Your task to perform on an android device: Go to Yahoo.com Image 0: 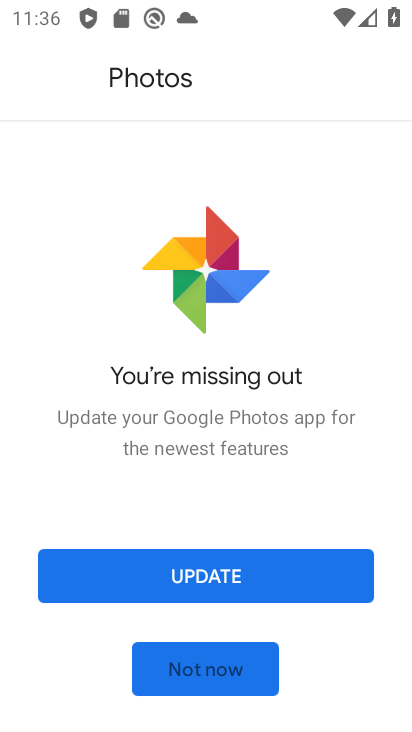
Step 0: press home button
Your task to perform on an android device: Go to Yahoo.com Image 1: 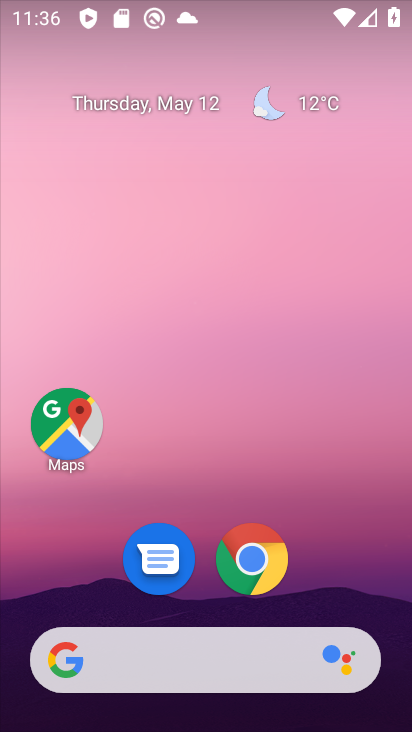
Step 1: click (285, 568)
Your task to perform on an android device: Go to Yahoo.com Image 2: 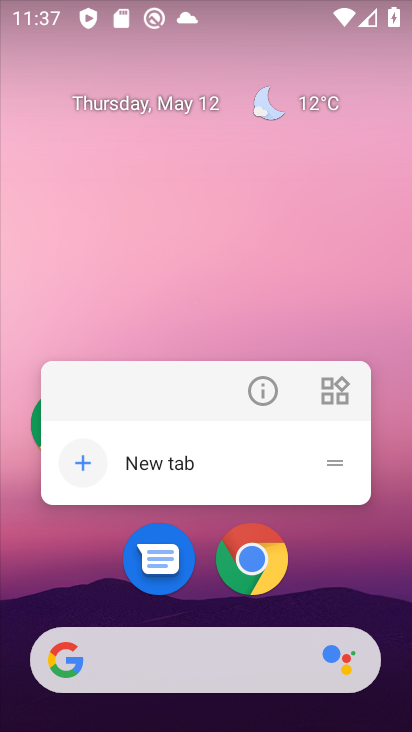
Step 2: click (257, 571)
Your task to perform on an android device: Go to Yahoo.com Image 3: 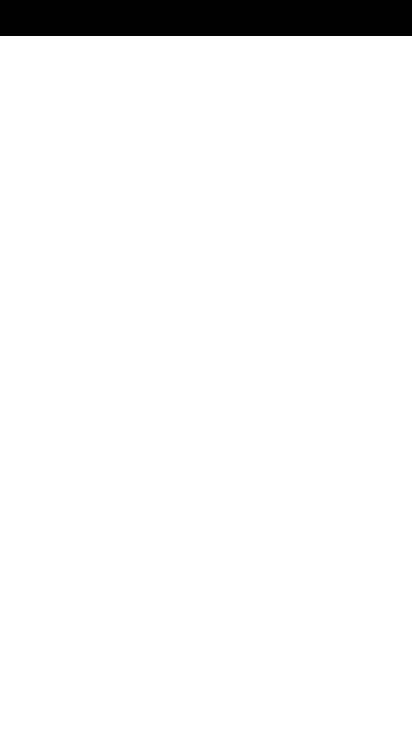
Step 3: click (257, 571)
Your task to perform on an android device: Go to Yahoo.com Image 4: 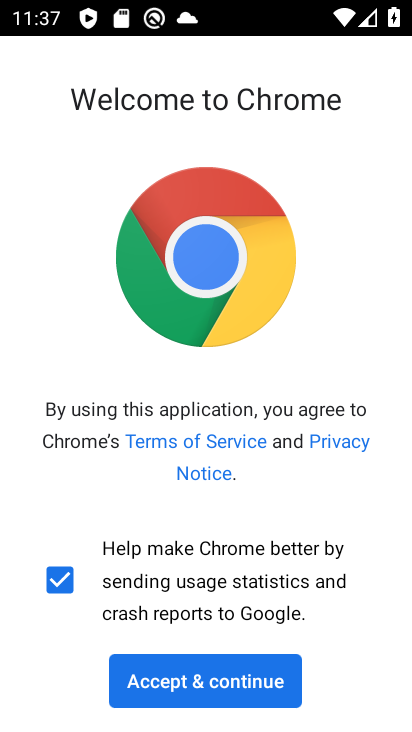
Step 4: click (215, 687)
Your task to perform on an android device: Go to Yahoo.com Image 5: 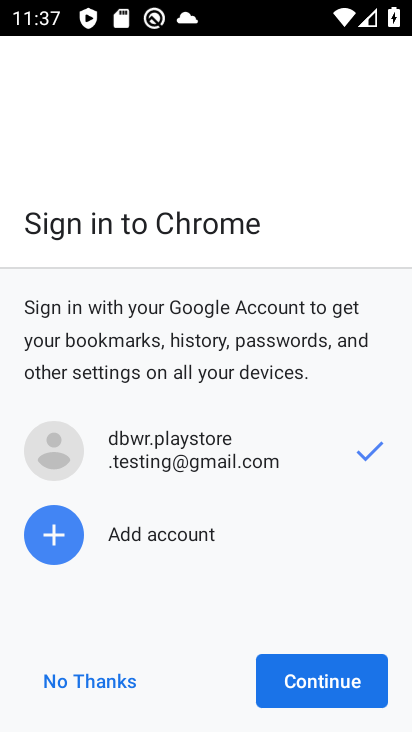
Step 5: click (360, 683)
Your task to perform on an android device: Go to Yahoo.com Image 6: 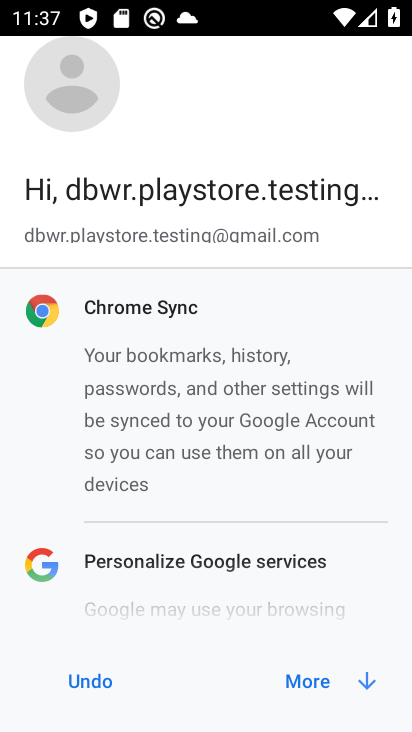
Step 6: click (354, 683)
Your task to perform on an android device: Go to Yahoo.com Image 7: 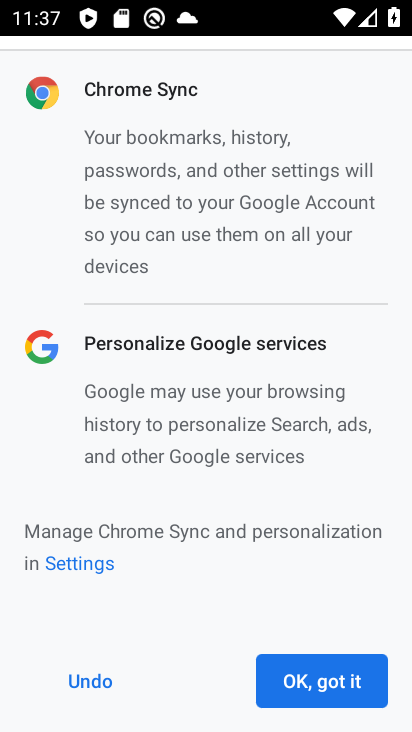
Step 7: click (353, 682)
Your task to perform on an android device: Go to Yahoo.com Image 8: 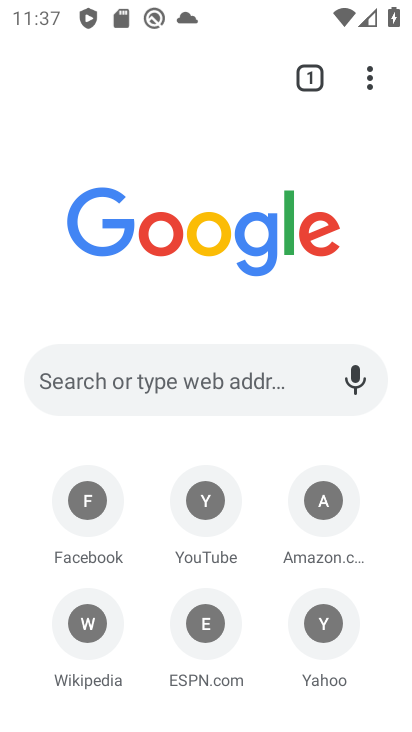
Step 8: click (353, 682)
Your task to perform on an android device: Go to Yahoo.com Image 9: 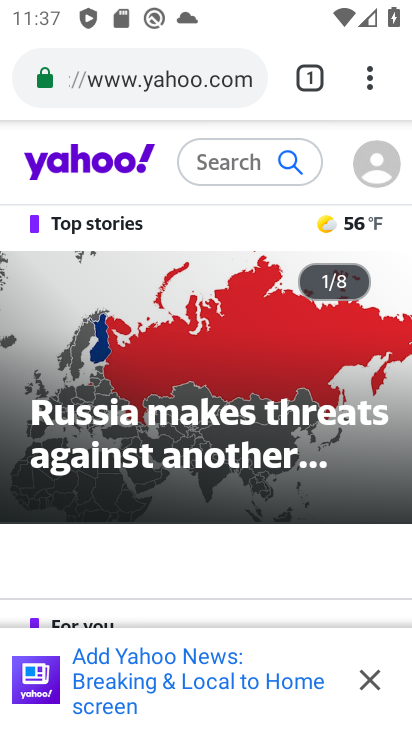
Step 9: task complete